Your task to perform on an android device: turn on the 12-hour format for clock Image 0: 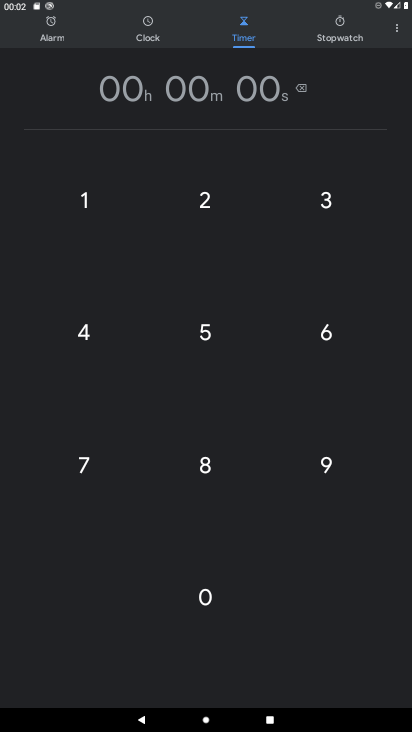
Step 0: click (398, 30)
Your task to perform on an android device: turn on the 12-hour format for clock Image 1: 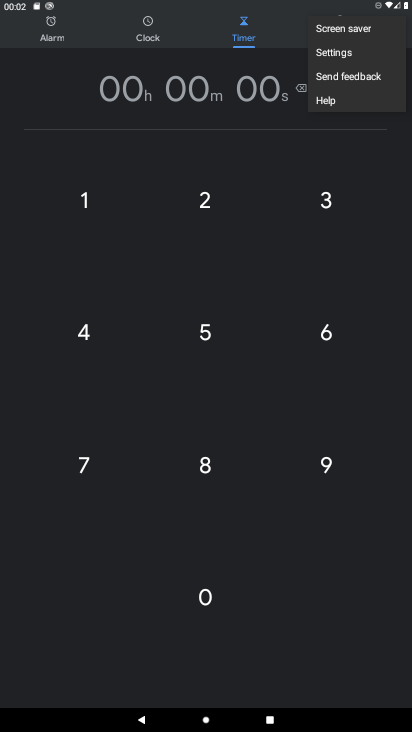
Step 1: click (324, 46)
Your task to perform on an android device: turn on the 12-hour format for clock Image 2: 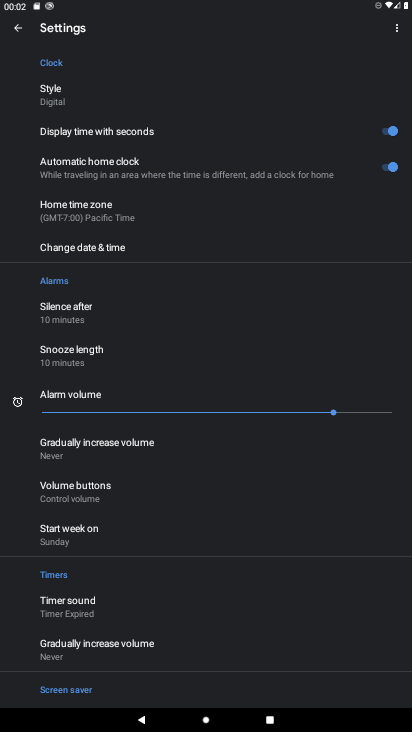
Step 2: click (87, 245)
Your task to perform on an android device: turn on the 12-hour format for clock Image 3: 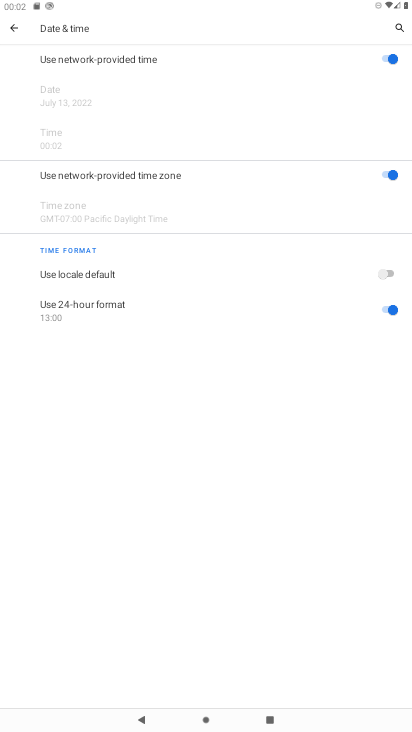
Step 3: click (384, 307)
Your task to perform on an android device: turn on the 12-hour format for clock Image 4: 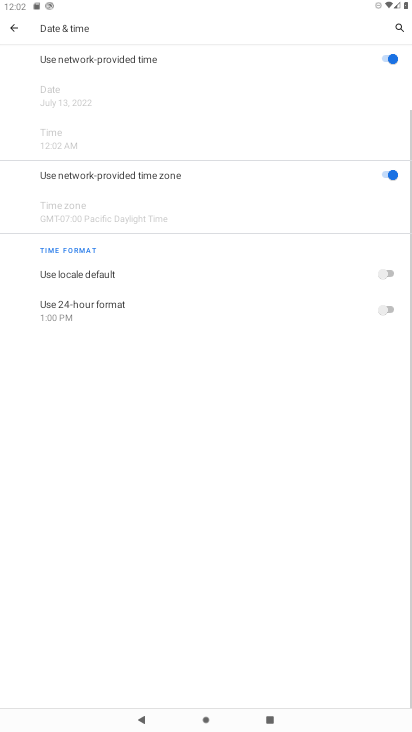
Step 4: click (389, 274)
Your task to perform on an android device: turn on the 12-hour format for clock Image 5: 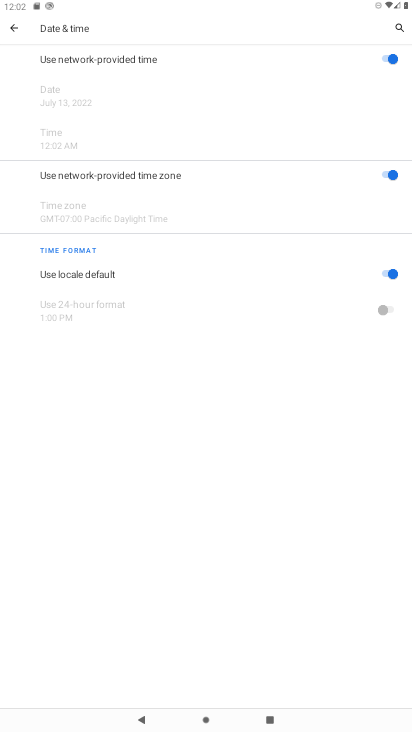
Step 5: task complete